Your task to perform on an android device: toggle show notifications on the lock screen Image 0: 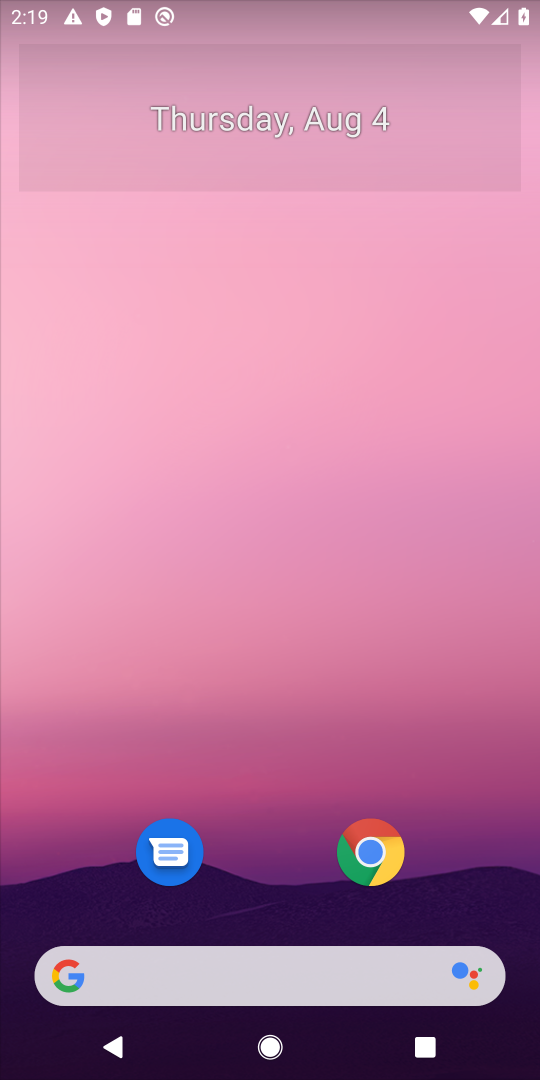
Step 0: drag from (259, 749) to (352, 86)
Your task to perform on an android device: toggle show notifications on the lock screen Image 1: 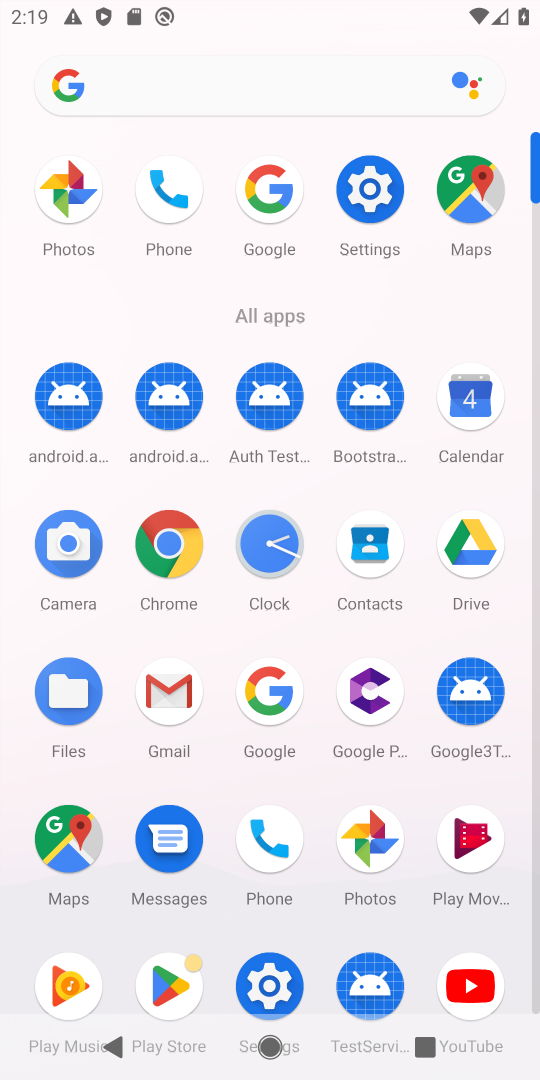
Step 1: click (361, 174)
Your task to perform on an android device: toggle show notifications on the lock screen Image 2: 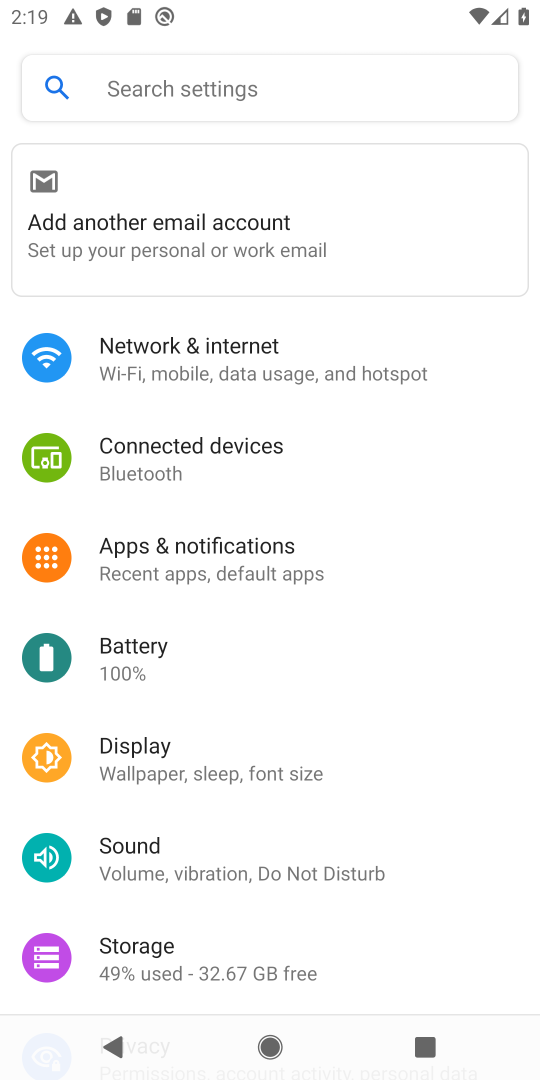
Step 2: click (167, 562)
Your task to perform on an android device: toggle show notifications on the lock screen Image 3: 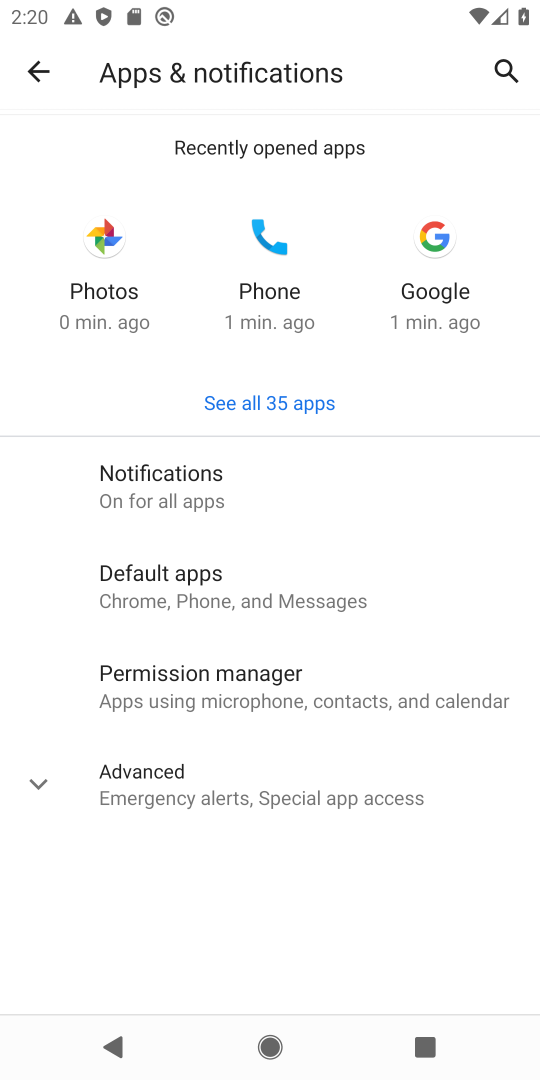
Step 3: click (212, 485)
Your task to perform on an android device: toggle show notifications on the lock screen Image 4: 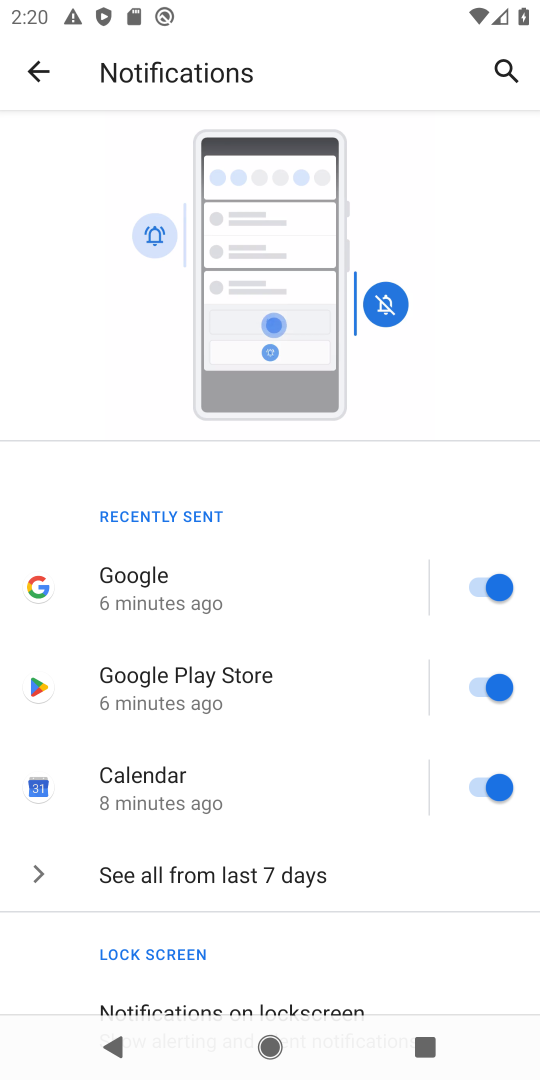
Step 4: drag from (214, 928) to (288, 444)
Your task to perform on an android device: toggle show notifications on the lock screen Image 5: 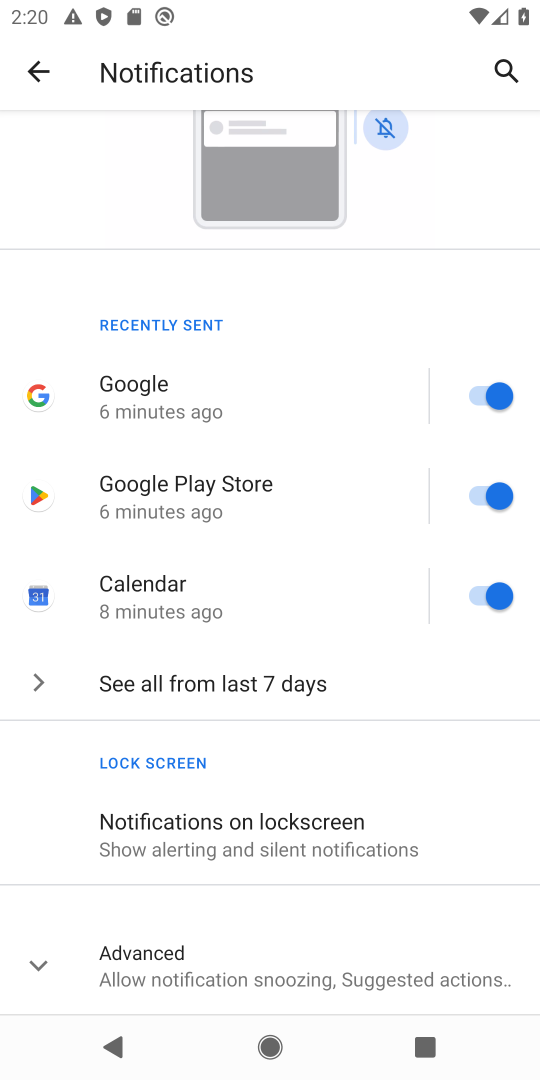
Step 5: click (206, 836)
Your task to perform on an android device: toggle show notifications on the lock screen Image 6: 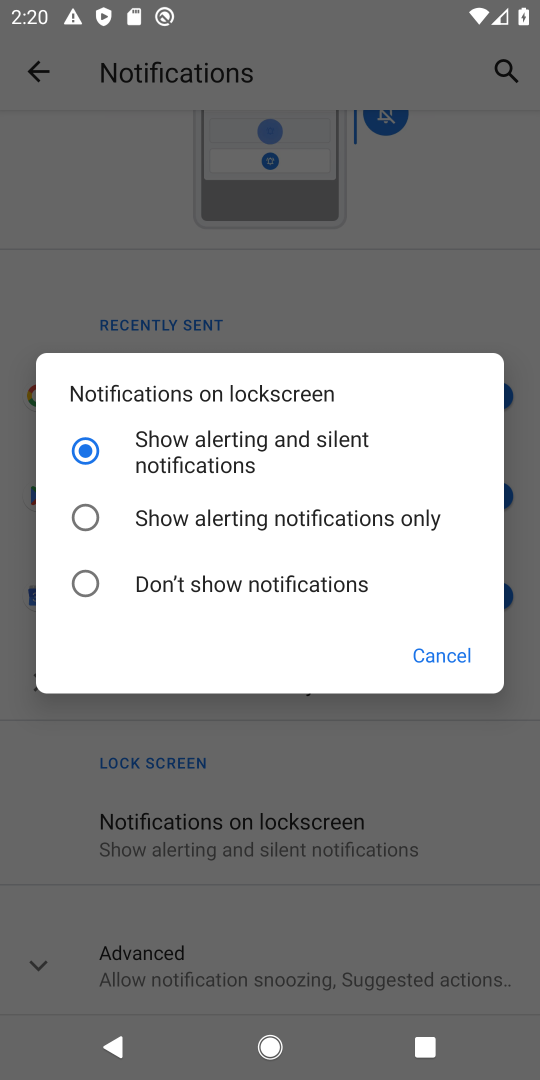
Step 6: click (77, 449)
Your task to perform on an android device: toggle show notifications on the lock screen Image 7: 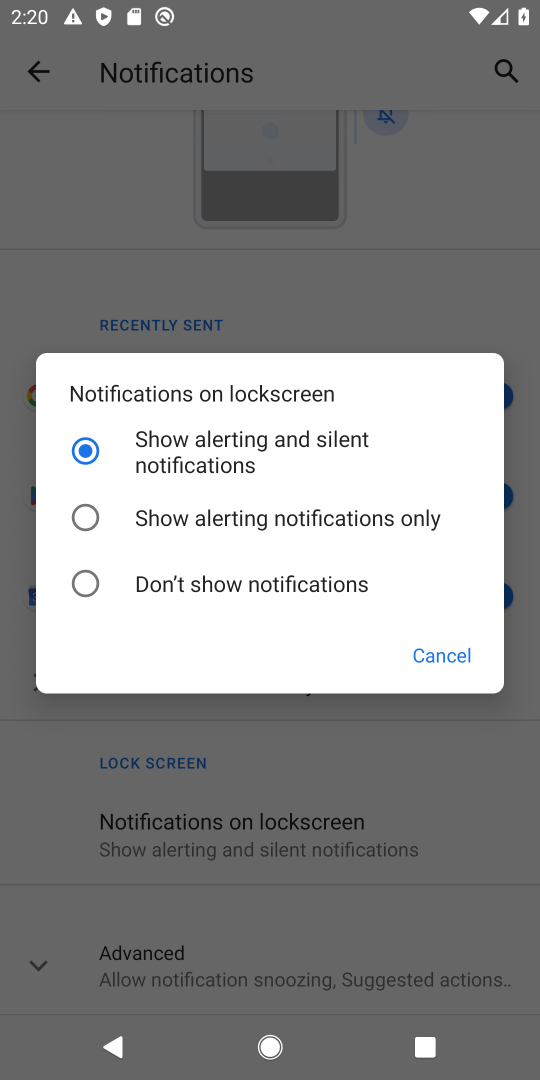
Step 7: task complete